Your task to perform on an android device: Open wifi settings Image 0: 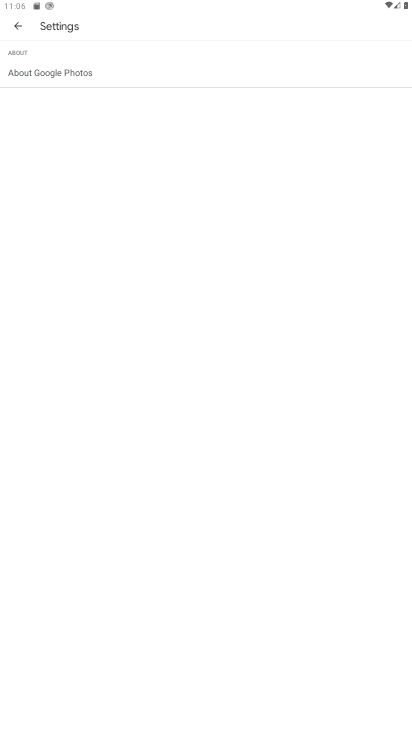
Step 0: press home button
Your task to perform on an android device: Open wifi settings Image 1: 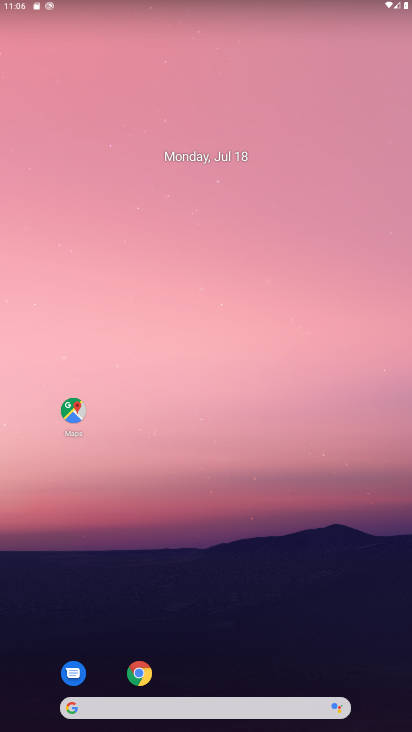
Step 1: drag from (226, 651) to (193, 131)
Your task to perform on an android device: Open wifi settings Image 2: 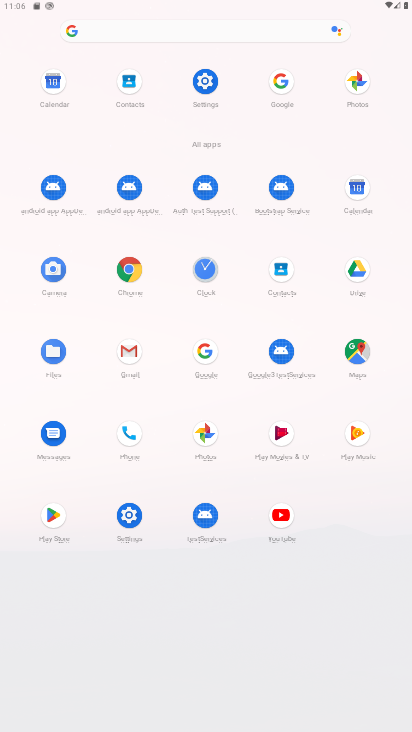
Step 2: click (197, 82)
Your task to perform on an android device: Open wifi settings Image 3: 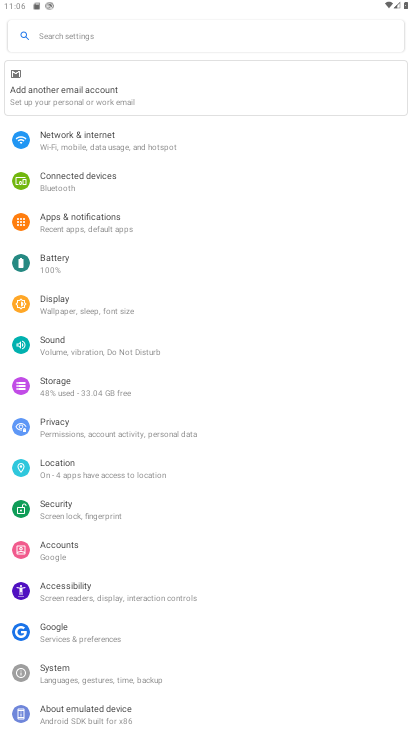
Step 3: click (105, 127)
Your task to perform on an android device: Open wifi settings Image 4: 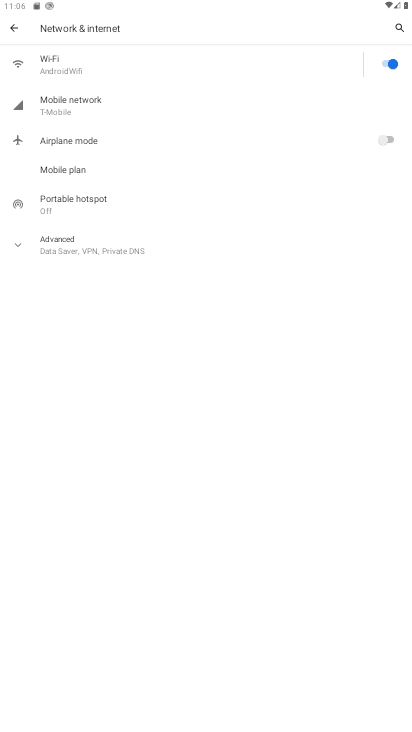
Step 4: click (68, 58)
Your task to perform on an android device: Open wifi settings Image 5: 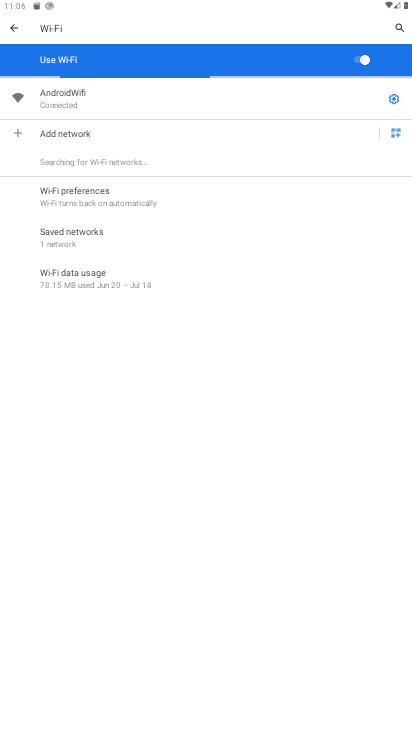
Step 5: task complete